Your task to perform on an android device: snooze an email in the gmail app Image 0: 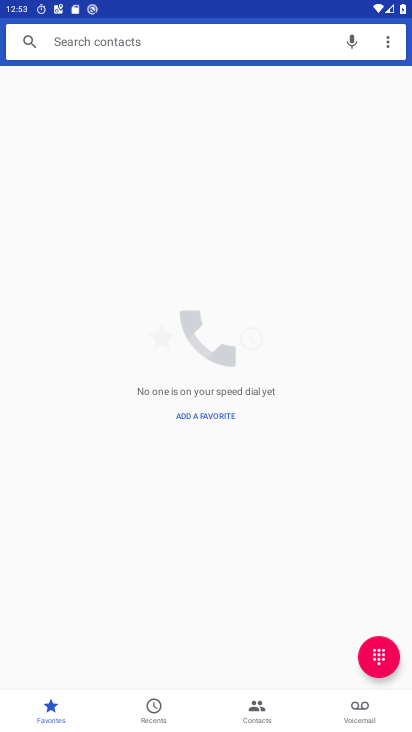
Step 0: drag from (199, 632) to (226, 342)
Your task to perform on an android device: snooze an email in the gmail app Image 1: 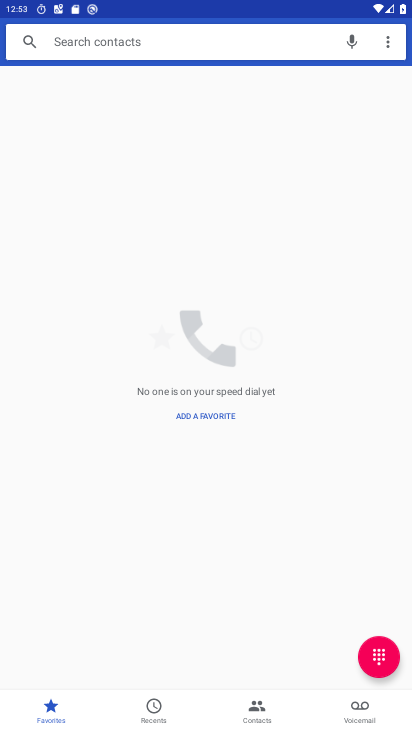
Step 1: press home button
Your task to perform on an android device: snooze an email in the gmail app Image 2: 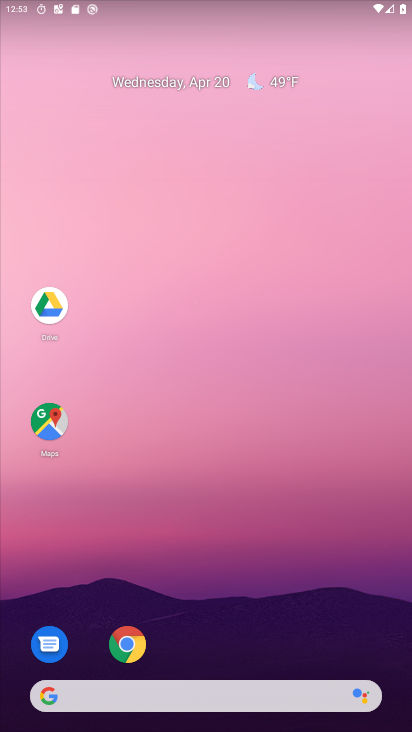
Step 2: drag from (209, 629) to (206, 44)
Your task to perform on an android device: snooze an email in the gmail app Image 3: 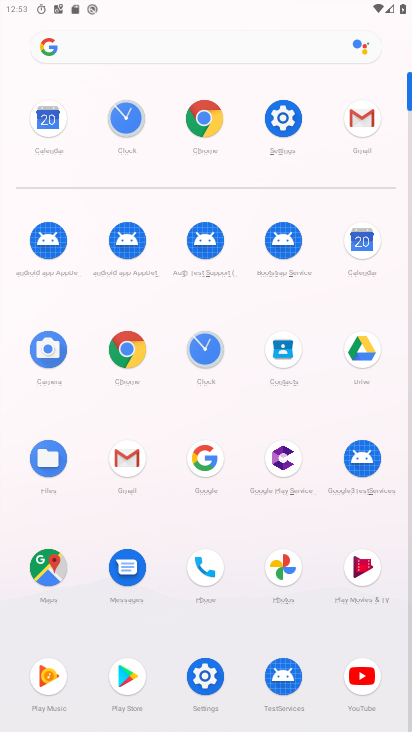
Step 3: click (124, 455)
Your task to perform on an android device: snooze an email in the gmail app Image 4: 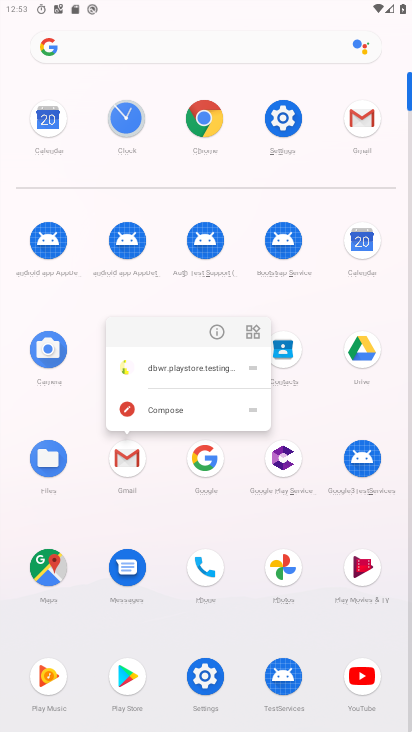
Step 4: click (122, 465)
Your task to perform on an android device: snooze an email in the gmail app Image 5: 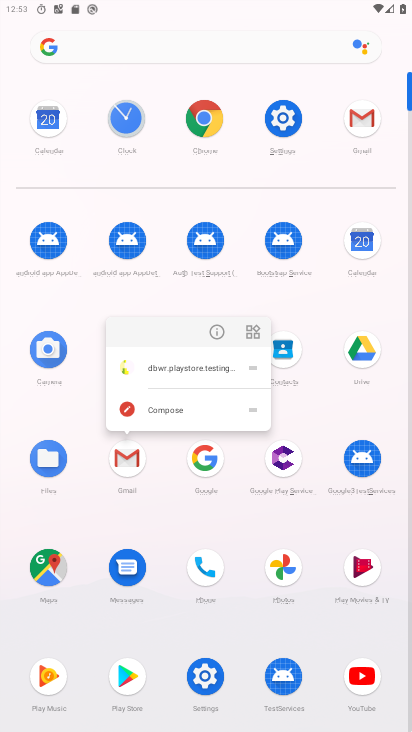
Step 5: click (122, 461)
Your task to perform on an android device: snooze an email in the gmail app Image 6: 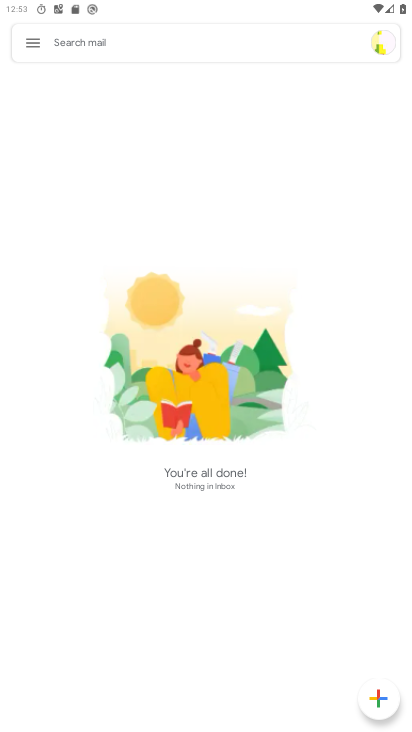
Step 6: click (31, 42)
Your task to perform on an android device: snooze an email in the gmail app Image 7: 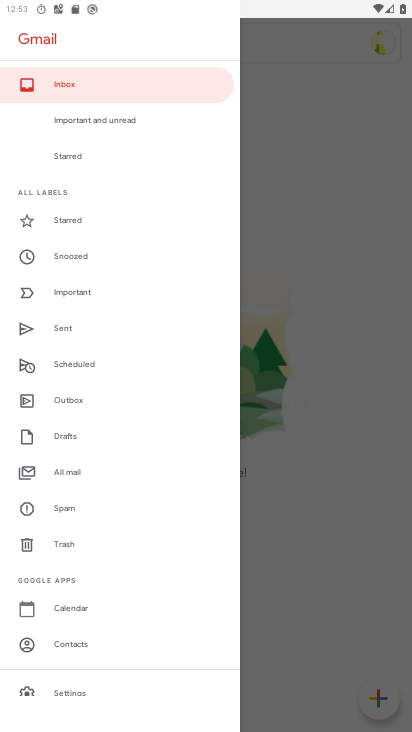
Step 7: click (95, 255)
Your task to perform on an android device: snooze an email in the gmail app Image 8: 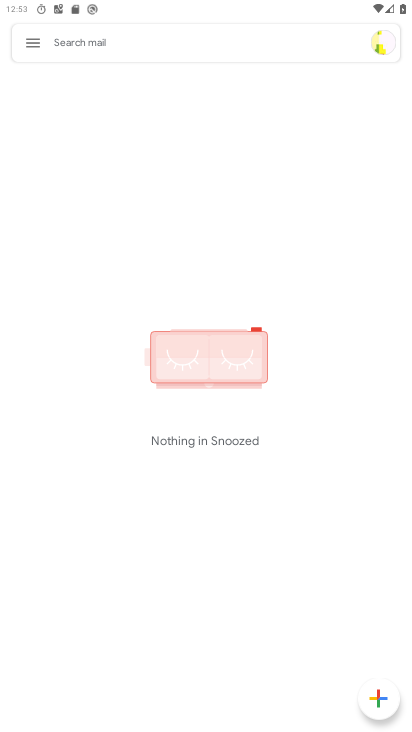
Step 8: click (29, 39)
Your task to perform on an android device: snooze an email in the gmail app Image 9: 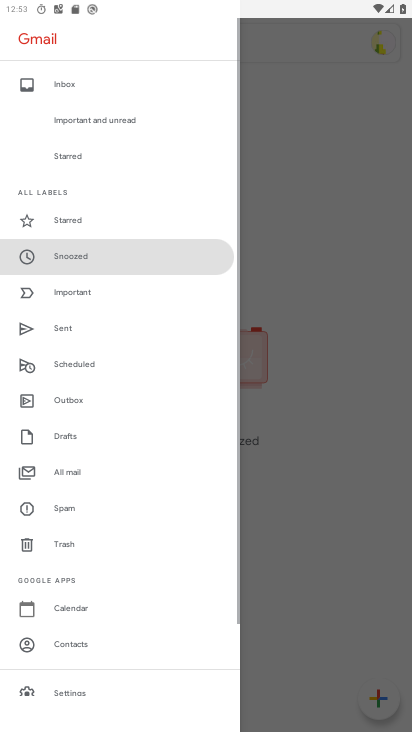
Step 9: click (86, 480)
Your task to perform on an android device: snooze an email in the gmail app Image 10: 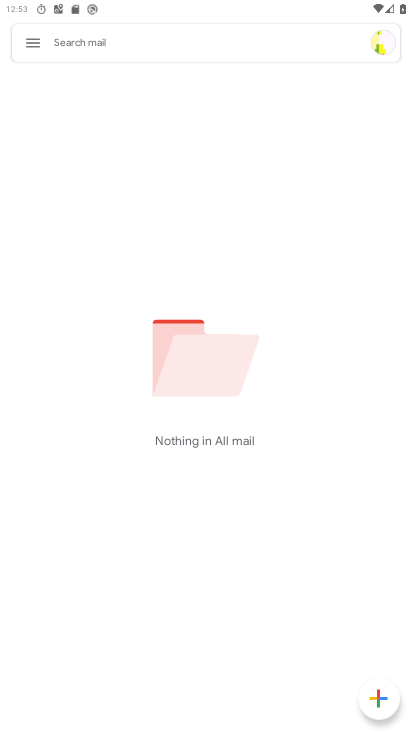
Step 10: task complete